Your task to perform on an android device: What is the news today? Image 0: 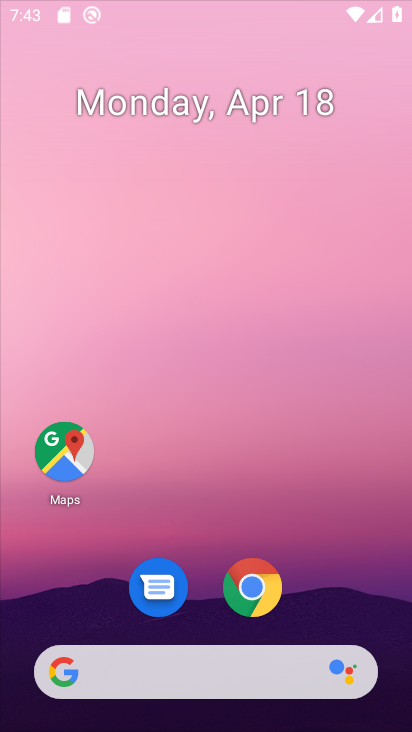
Step 0: click (220, 662)
Your task to perform on an android device: What is the news today? Image 1: 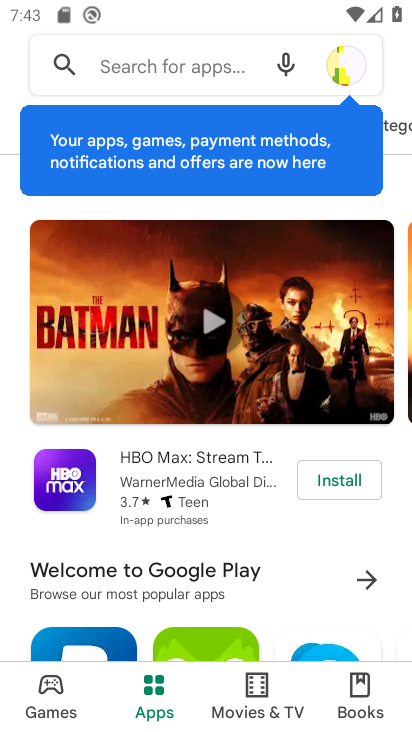
Step 1: press home button
Your task to perform on an android device: What is the news today? Image 2: 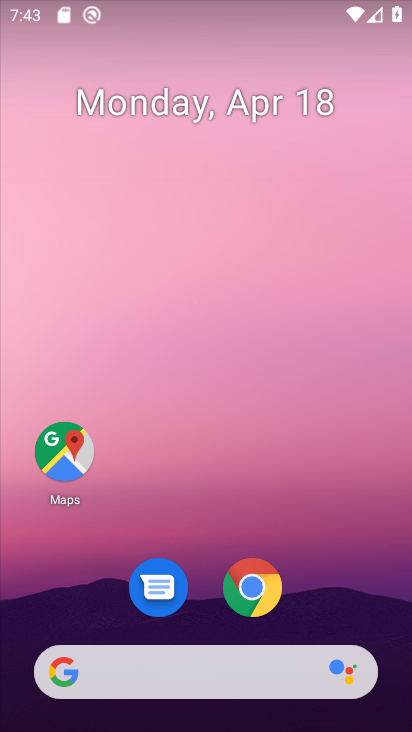
Step 2: click (156, 688)
Your task to perform on an android device: What is the news today? Image 3: 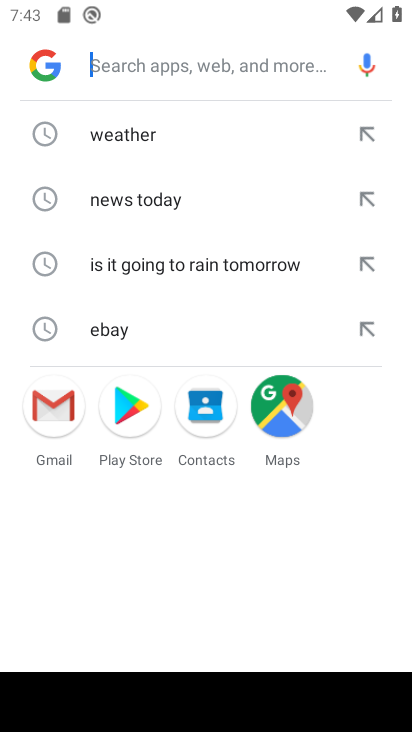
Step 3: click (36, 85)
Your task to perform on an android device: What is the news today? Image 4: 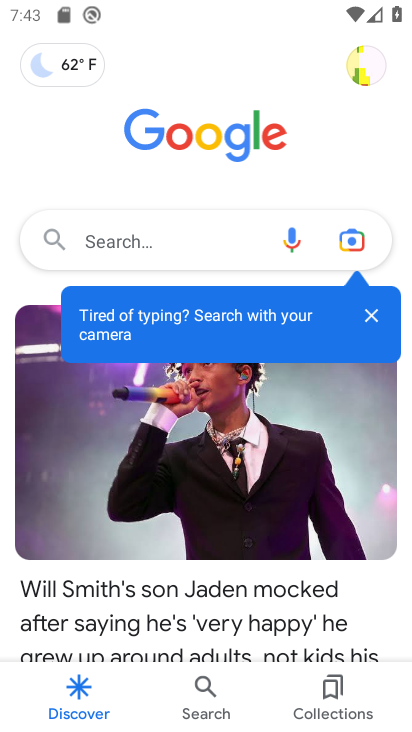
Step 4: task complete